Your task to perform on an android device: Search for pizza restaurants on Maps Image 0: 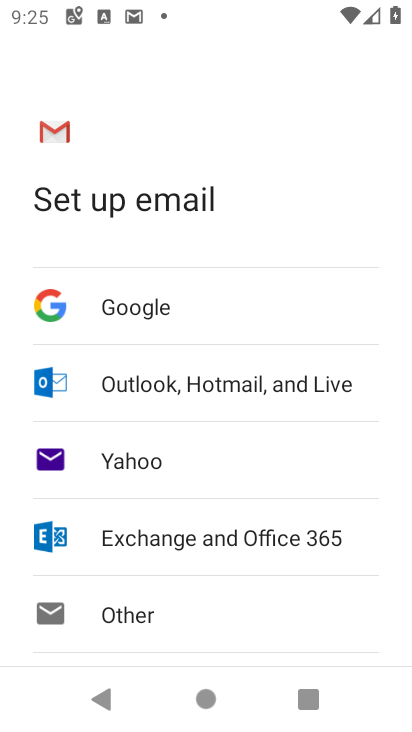
Step 0: press home button
Your task to perform on an android device: Search for pizza restaurants on Maps Image 1: 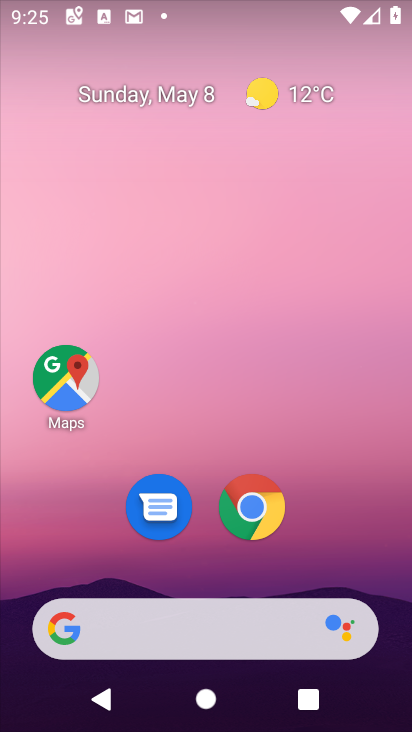
Step 1: click (56, 396)
Your task to perform on an android device: Search for pizza restaurants on Maps Image 2: 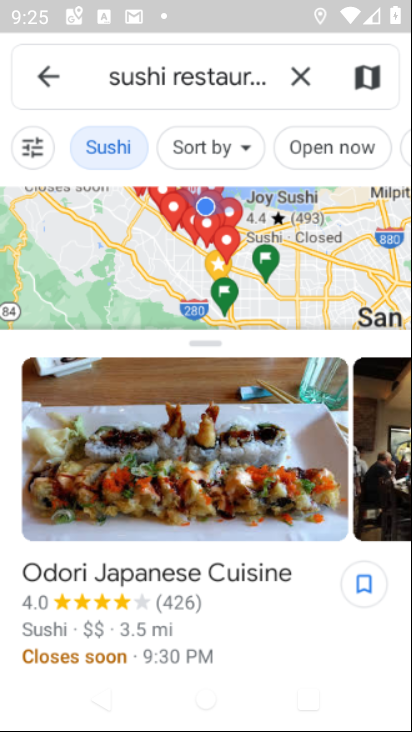
Step 2: click (297, 69)
Your task to perform on an android device: Search for pizza restaurants on Maps Image 3: 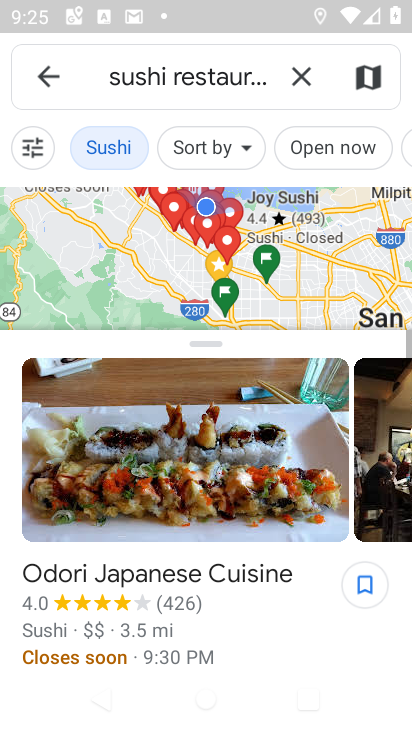
Step 3: click (298, 77)
Your task to perform on an android device: Search for pizza restaurants on Maps Image 4: 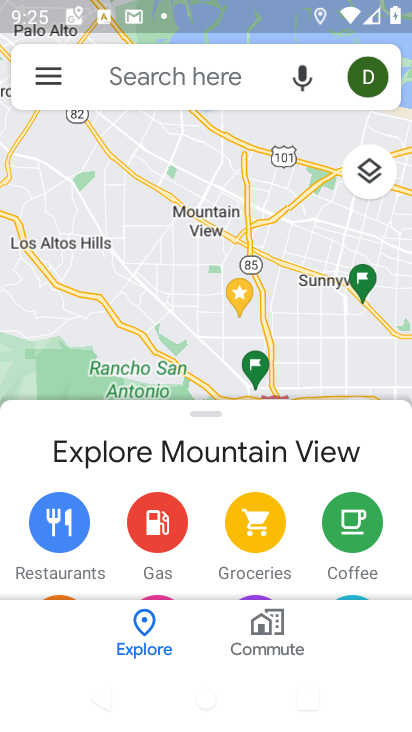
Step 4: click (233, 79)
Your task to perform on an android device: Search for pizza restaurants on Maps Image 5: 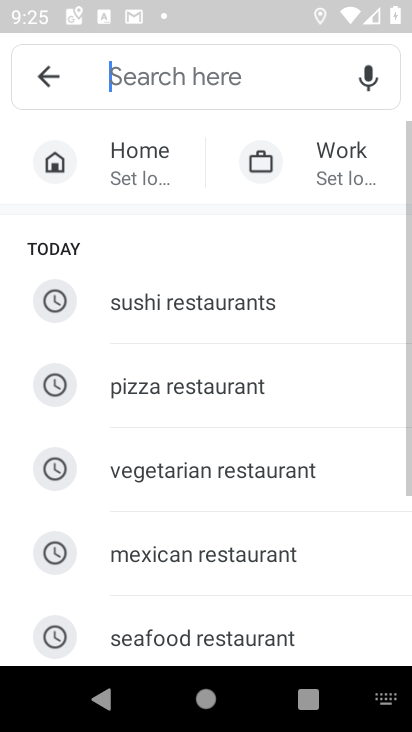
Step 5: click (141, 368)
Your task to perform on an android device: Search for pizza restaurants on Maps Image 6: 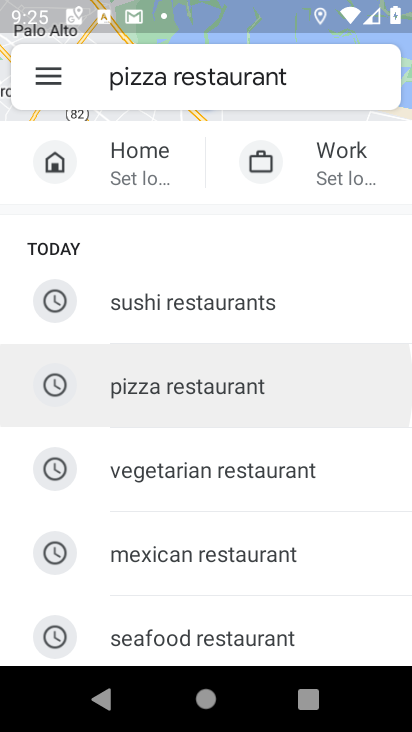
Step 6: click (141, 386)
Your task to perform on an android device: Search for pizza restaurants on Maps Image 7: 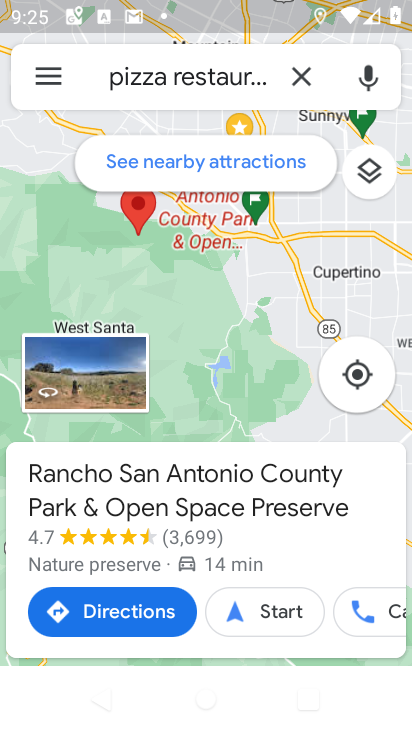
Step 7: task complete